Your task to perform on an android device: add a contact Image 0: 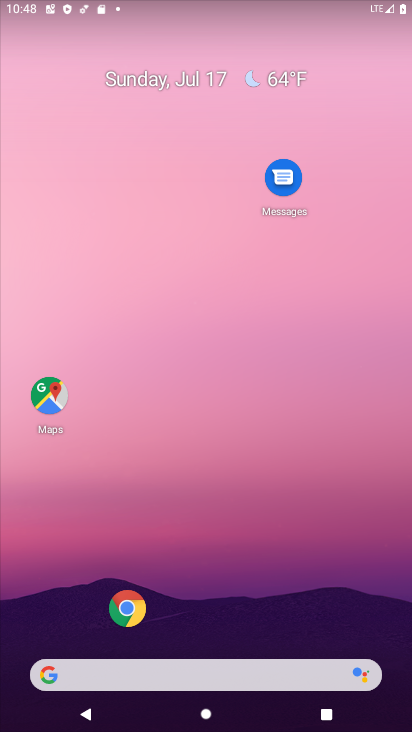
Step 0: drag from (31, 666) to (180, 237)
Your task to perform on an android device: add a contact Image 1: 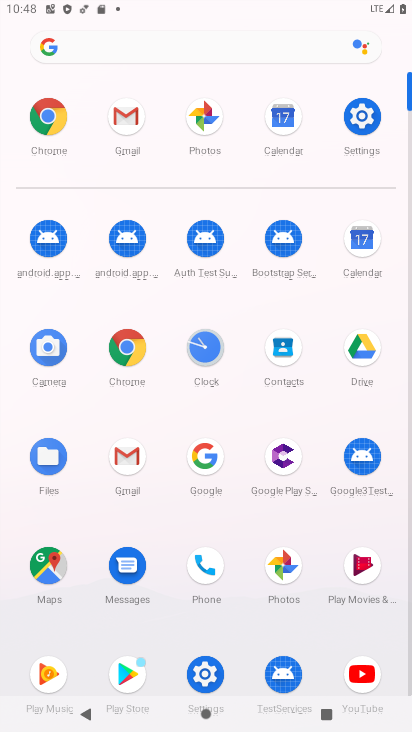
Step 1: click (284, 357)
Your task to perform on an android device: add a contact Image 2: 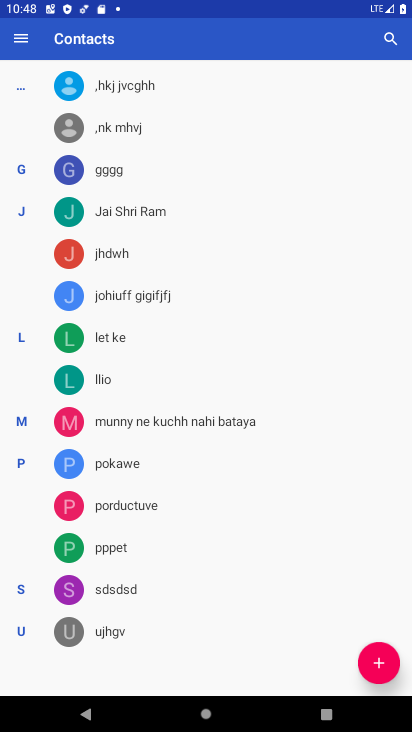
Step 2: click (373, 663)
Your task to perform on an android device: add a contact Image 3: 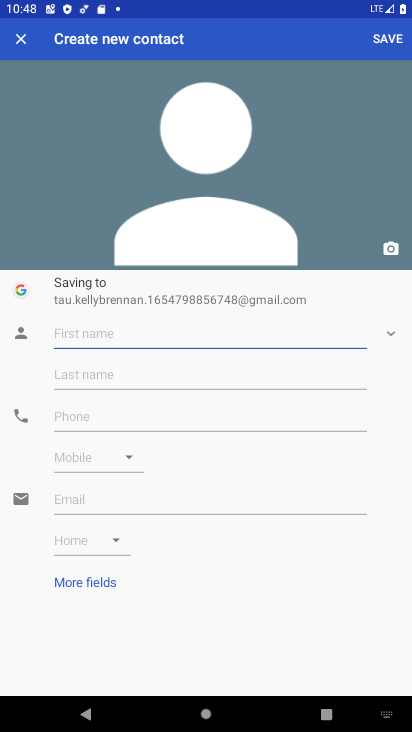
Step 3: type "yttf6rtiuguif"
Your task to perform on an android device: add a contact Image 4: 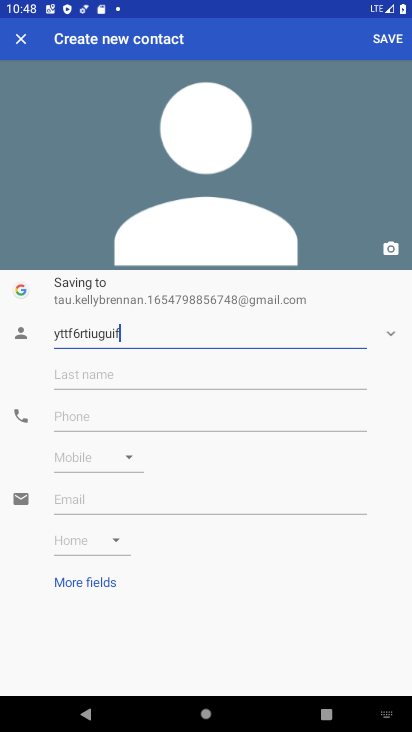
Step 4: type ""
Your task to perform on an android device: add a contact Image 5: 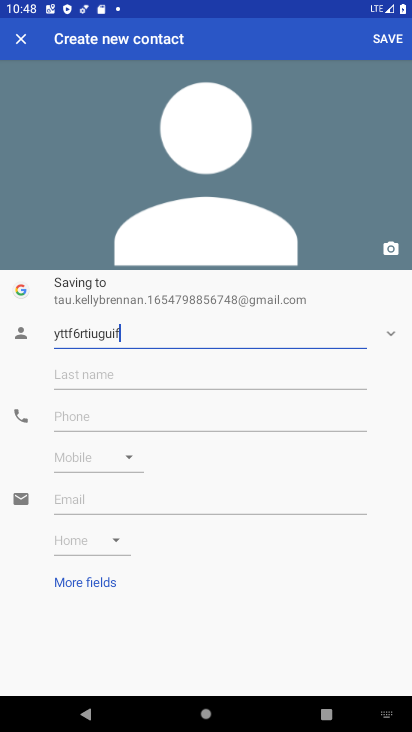
Step 5: click (387, 38)
Your task to perform on an android device: add a contact Image 6: 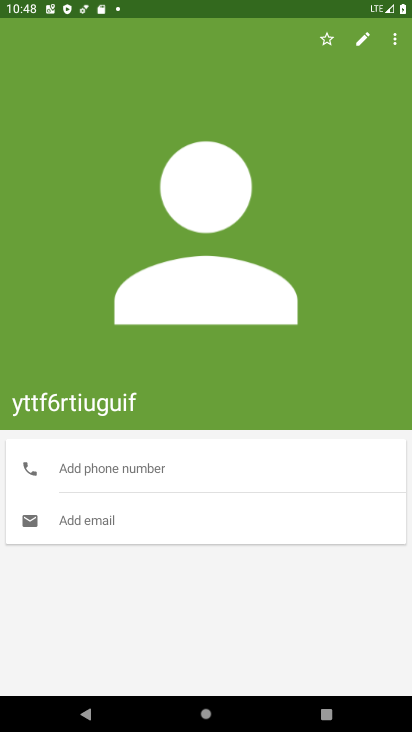
Step 6: task complete